Your task to perform on an android device: open chrome privacy settings Image 0: 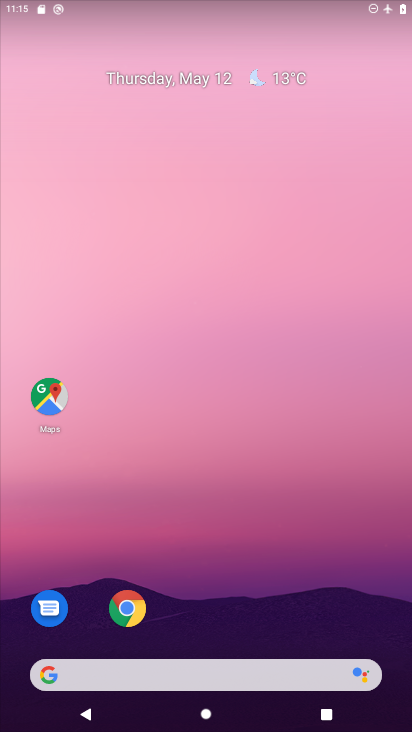
Step 0: click (124, 614)
Your task to perform on an android device: open chrome privacy settings Image 1: 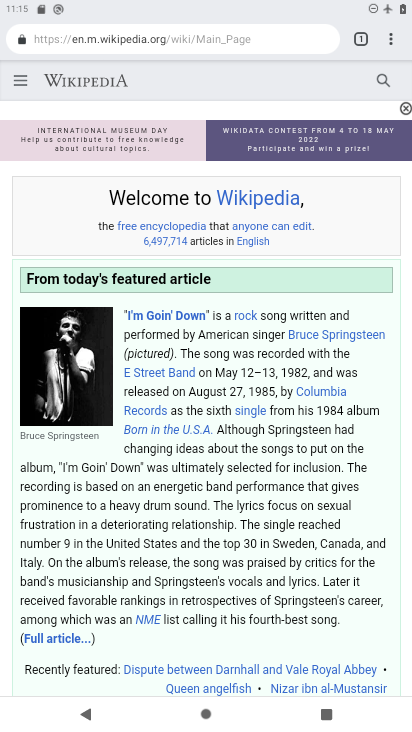
Step 1: click (386, 38)
Your task to perform on an android device: open chrome privacy settings Image 2: 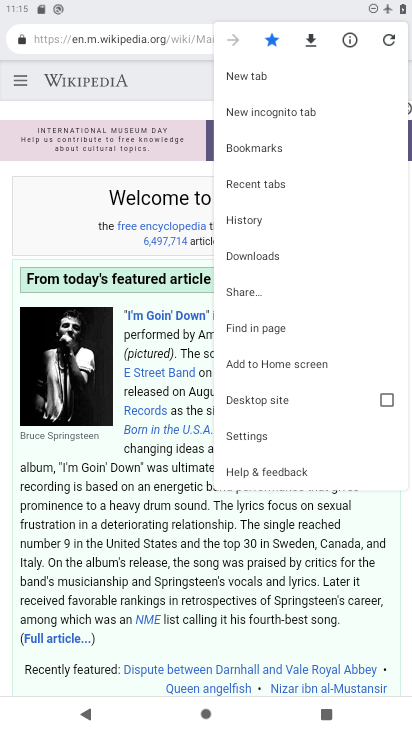
Step 2: click (260, 440)
Your task to perform on an android device: open chrome privacy settings Image 3: 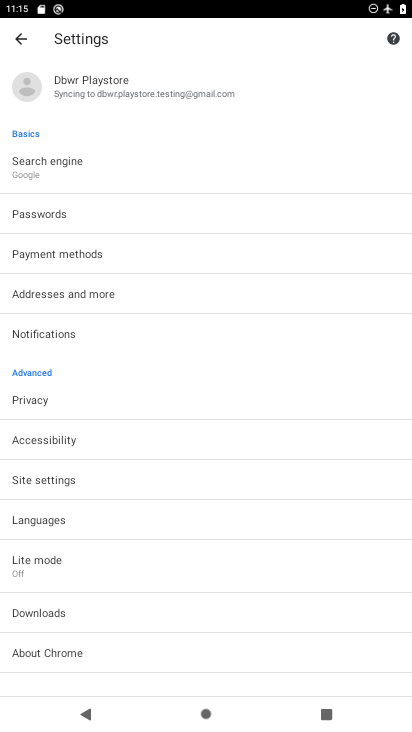
Step 3: click (63, 395)
Your task to perform on an android device: open chrome privacy settings Image 4: 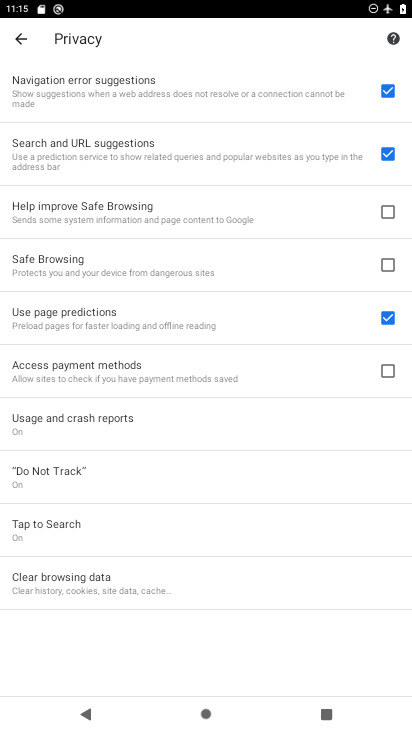
Step 4: task complete